Your task to perform on an android device: Open settings Image 0: 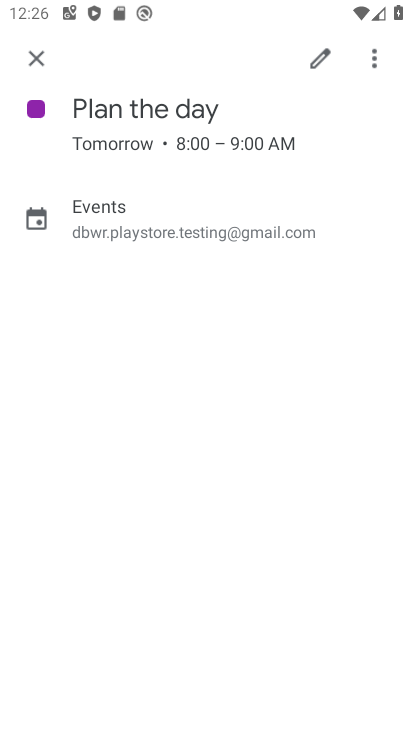
Step 0: drag from (263, 604) to (268, 124)
Your task to perform on an android device: Open settings Image 1: 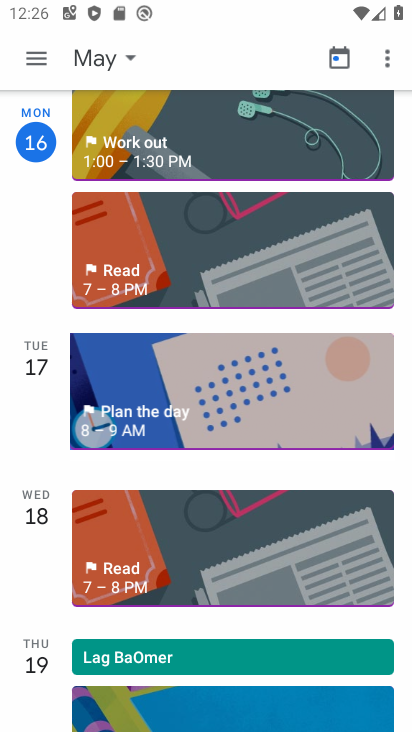
Step 1: press back button
Your task to perform on an android device: Open settings Image 2: 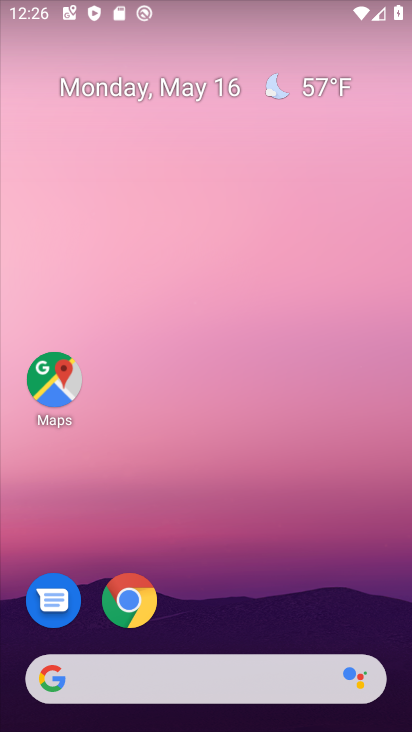
Step 2: drag from (215, 530) to (263, 20)
Your task to perform on an android device: Open settings Image 3: 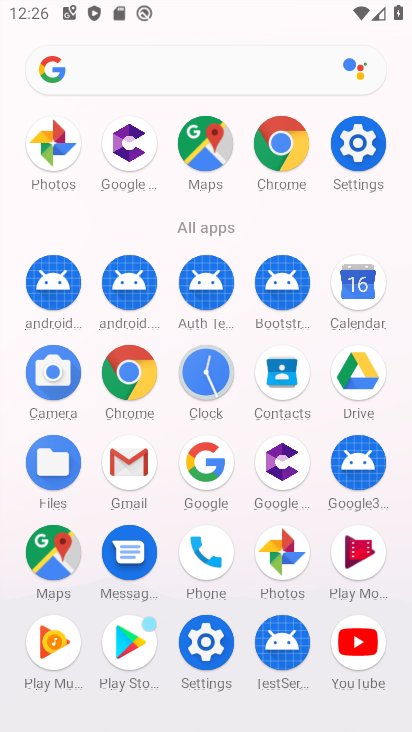
Step 3: click (348, 136)
Your task to perform on an android device: Open settings Image 4: 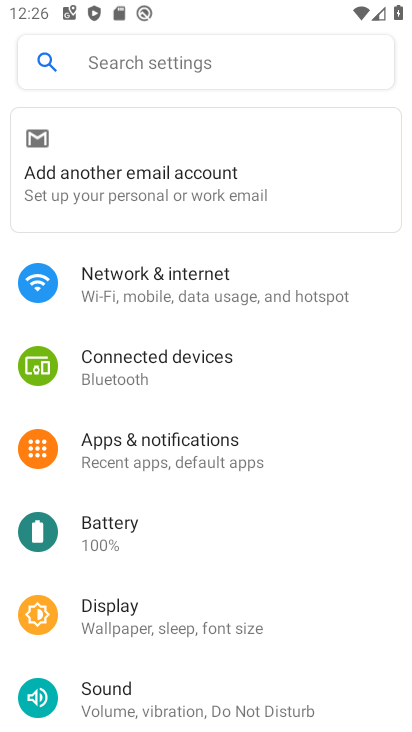
Step 4: task complete